Your task to perform on an android device: turn off translation in the chrome app Image 0: 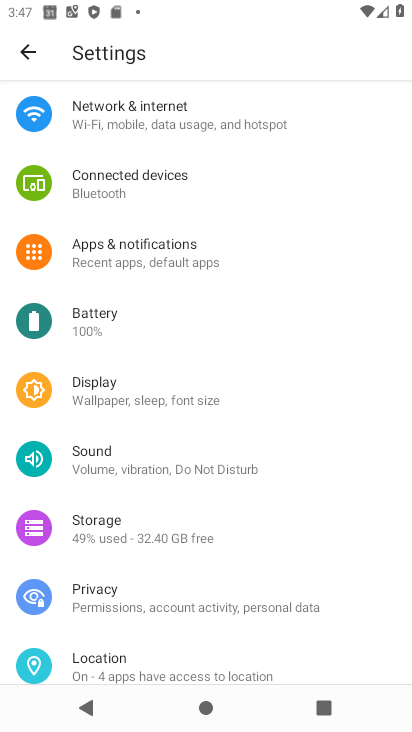
Step 0: press home button
Your task to perform on an android device: turn off translation in the chrome app Image 1: 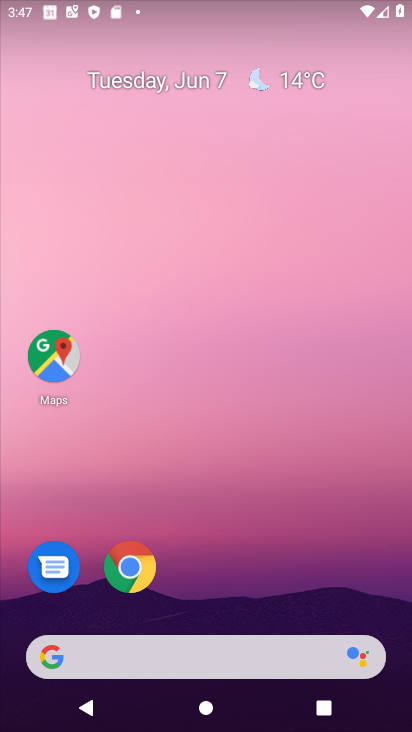
Step 1: click (108, 572)
Your task to perform on an android device: turn off translation in the chrome app Image 2: 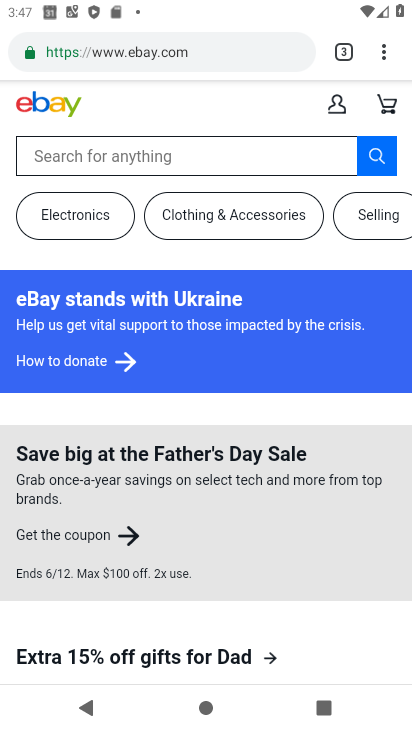
Step 2: click (386, 47)
Your task to perform on an android device: turn off translation in the chrome app Image 3: 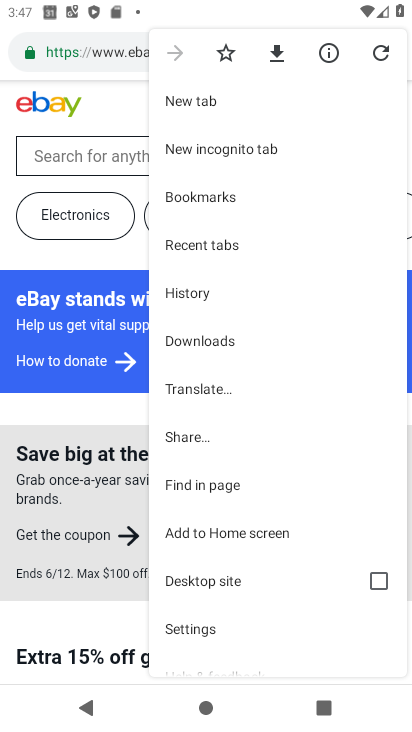
Step 3: click (219, 624)
Your task to perform on an android device: turn off translation in the chrome app Image 4: 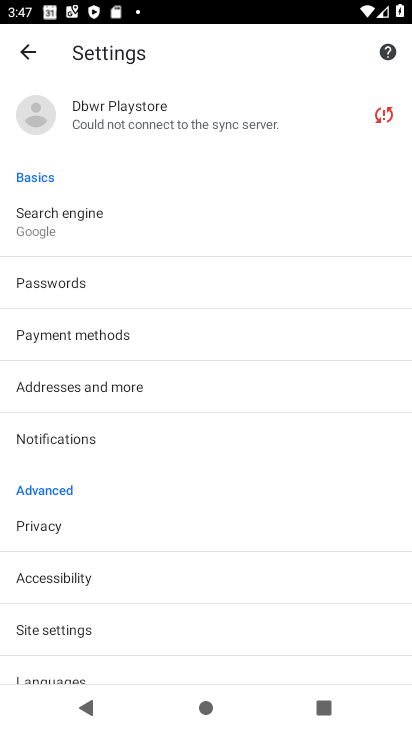
Step 4: drag from (117, 652) to (162, 439)
Your task to perform on an android device: turn off translation in the chrome app Image 5: 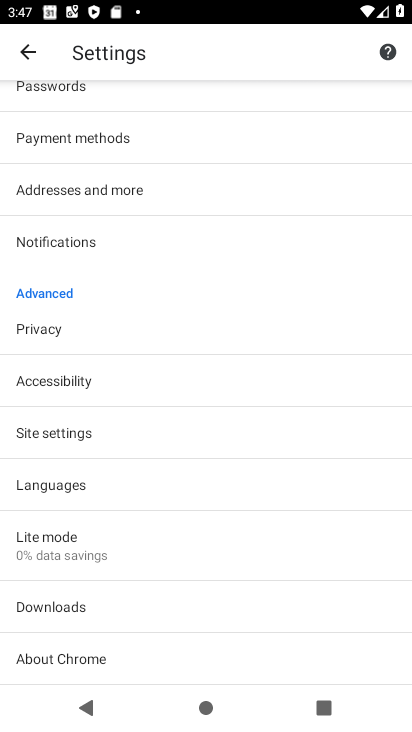
Step 5: click (120, 482)
Your task to perform on an android device: turn off translation in the chrome app Image 6: 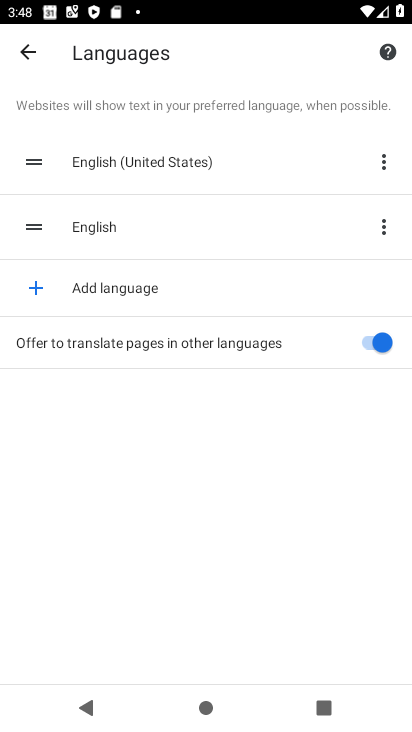
Step 6: click (363, 353)
Your task to perform on an android device: turn off translation in the chrome app Image 7: 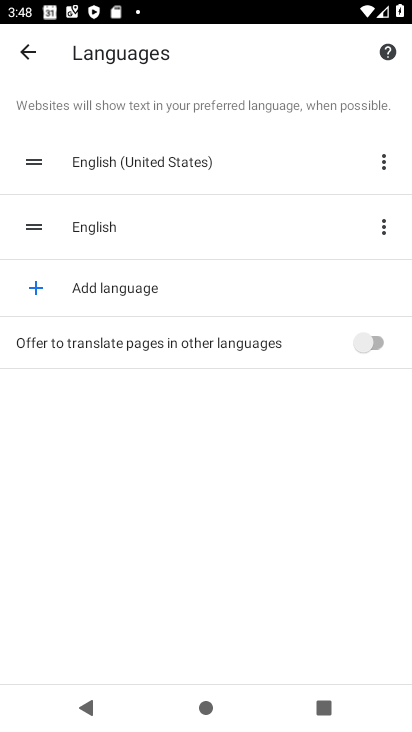
Step 7: task complete